Your task to perform on an android device: Go to Maps Image 0: 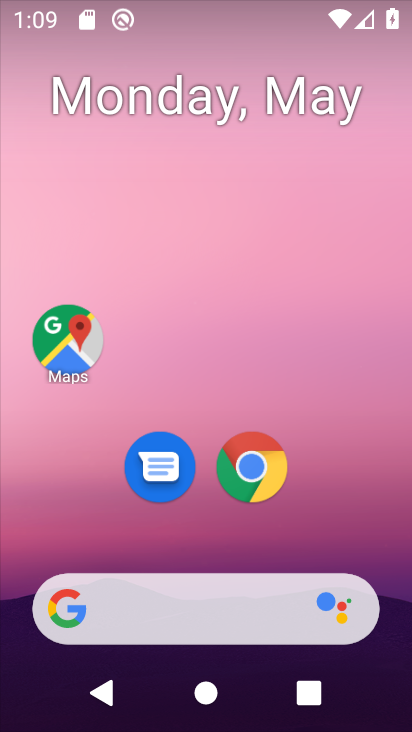
Step 0: click (71, 349)
Your task to perform on an android device: Go to Maps Image 1: 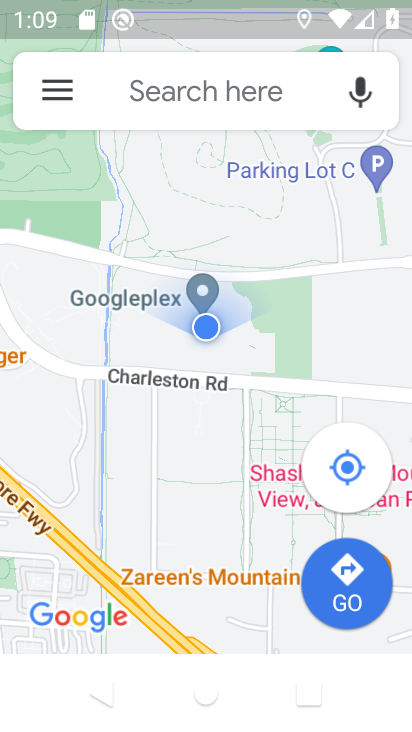
Step 1: task complete